Your task to perform on an android device: open the mobile data screen to see how much data has been used Image 0: 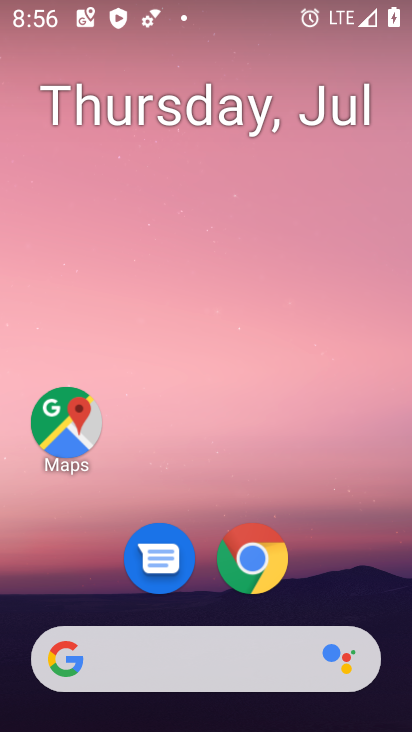
Step 0: drag from (160, 659) to (208, 149)
Your task to perform on an android device: open the mobile data screen to see how much data has been used Image 1: 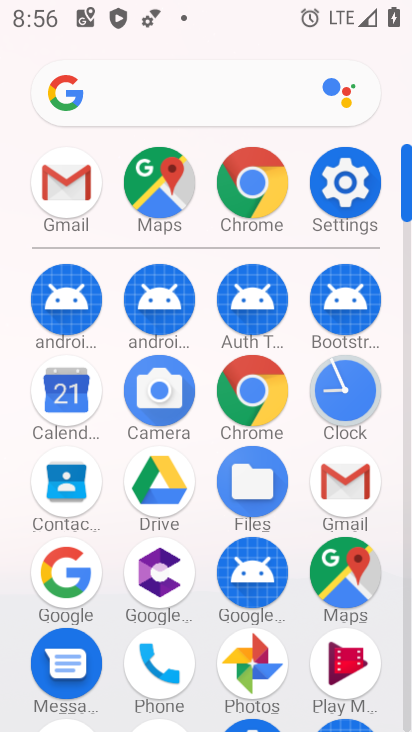
Step 1: click (337, 203)
Your task to perform on an android device: open the mobile data screen to see how much data has been used Image 2: 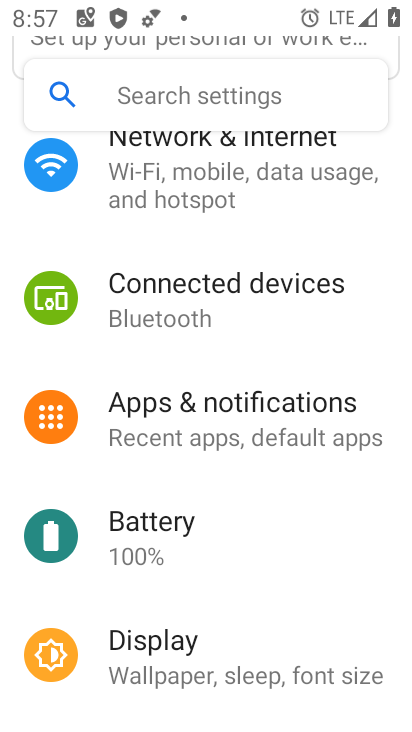
Step 2: drag from (213, 290) to (151, 534)
Your task to perform on an android device: open the mobile data screen to see how much data has been used Image 3: 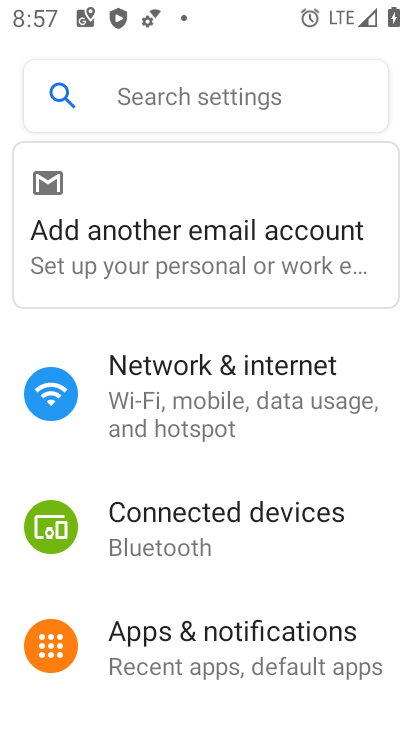
Step 3: click (163, 406)
Your task to perform on an android device: open the mobile data screen to see how much data has been used Image 4: 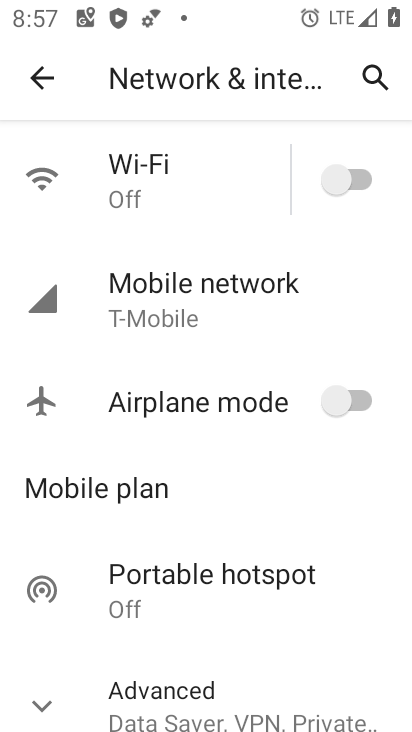
Step 4: click (100, 302)
Your task to perform on an android device: open the mobile data screen to see how much data has been used Image 5: 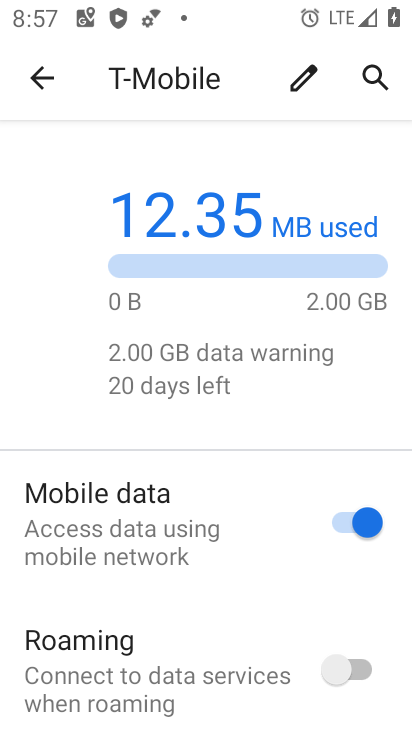
Step 5: drag from (87, 590) to (98, 340)
Your task to perform on an android device: open the mobile data screen to see how much data has been used Image 6: 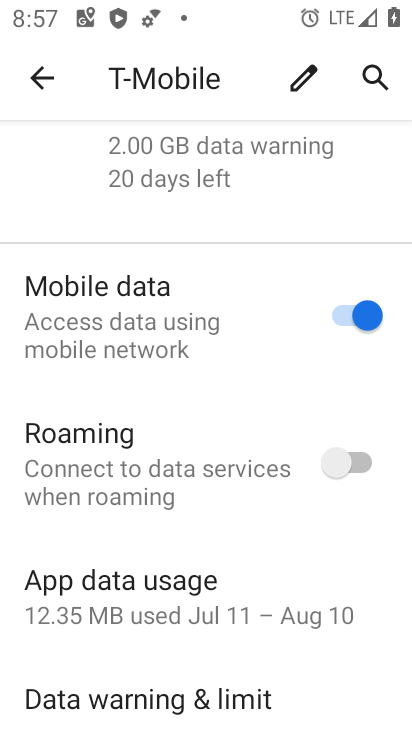
Step 6: click (122, 597)
Your task to perform on an android device: open the mobile data screen to see how much data has been used Image 7: 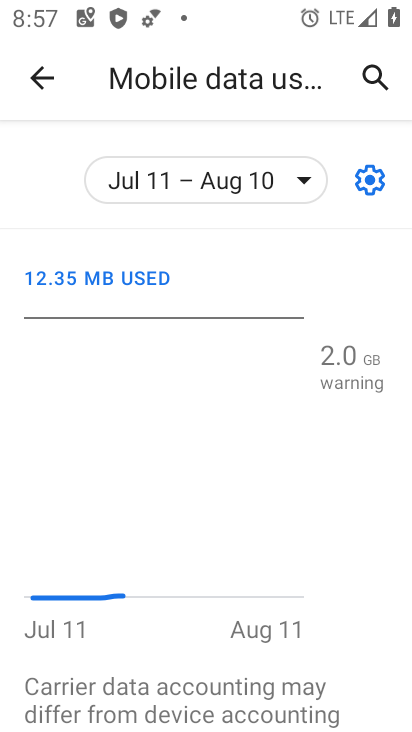
Step 7: task complete